Your task to perform on an android device: turn on airplane mode Image 0: 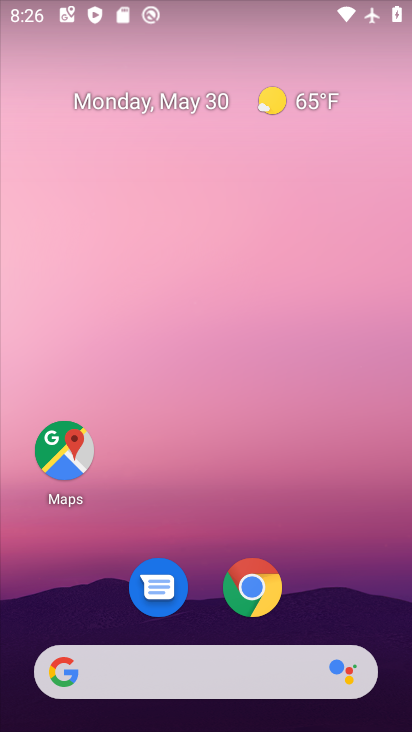
Step 0: press home button
Your task to perform on an android device: turn on airplane mode Image 1: 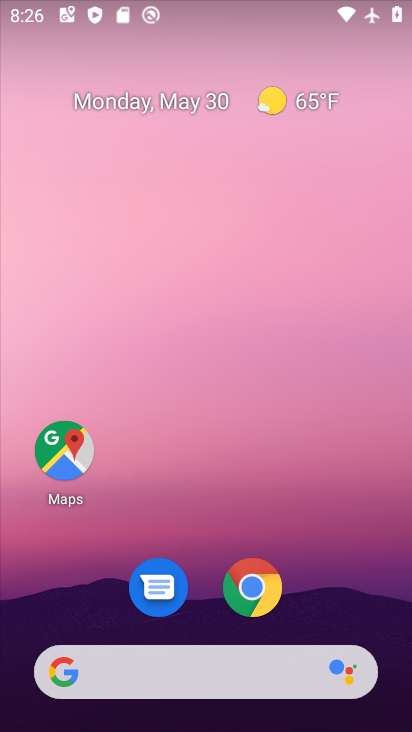
Step 1: drag from (225, 649) to (304, 88)
Your task to perform on an android device: turn on airplane mode Image 2: 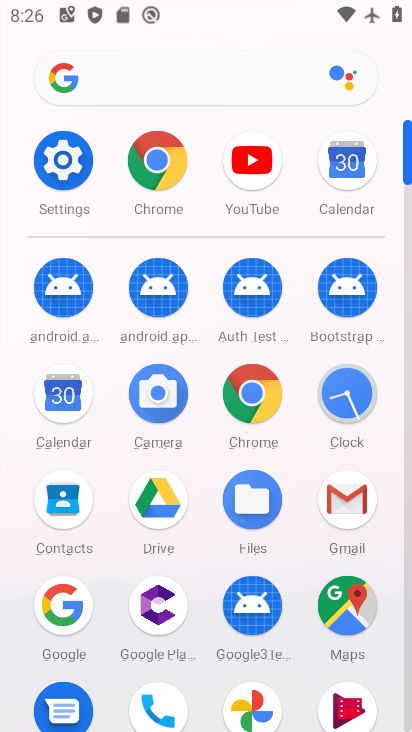
Step 2: click (64, 163)
Your task to perform on an android device: turn on airplane mode Image 3: 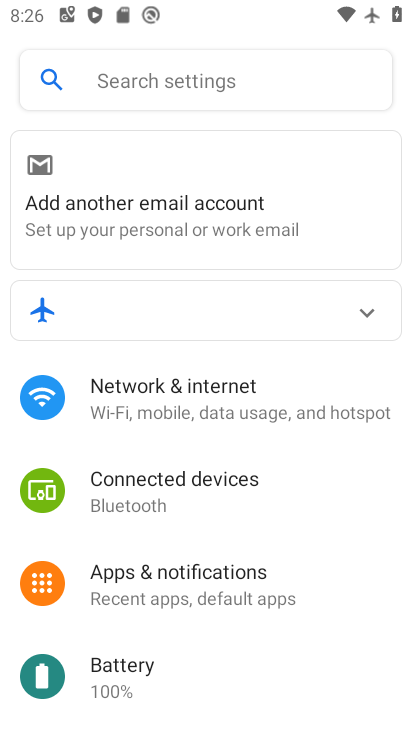
Step 3: click (141, 405)
Your task to perform on an android device: turn on airplane mode Image 4: 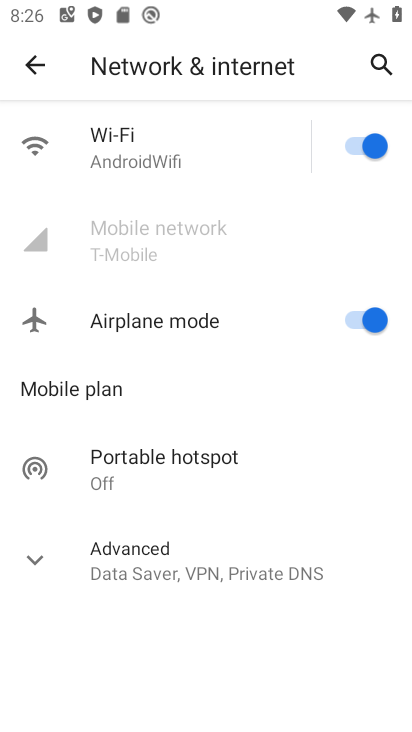
Step 4: task complete